Your task to perform on an android device: Go to privacy settings Image 0: 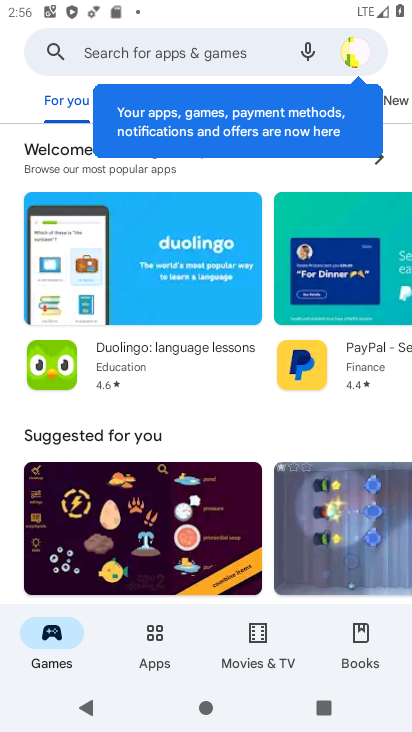
Step 0: press home button
Your task to perform on an android device: Go to privacy settings Image 1: 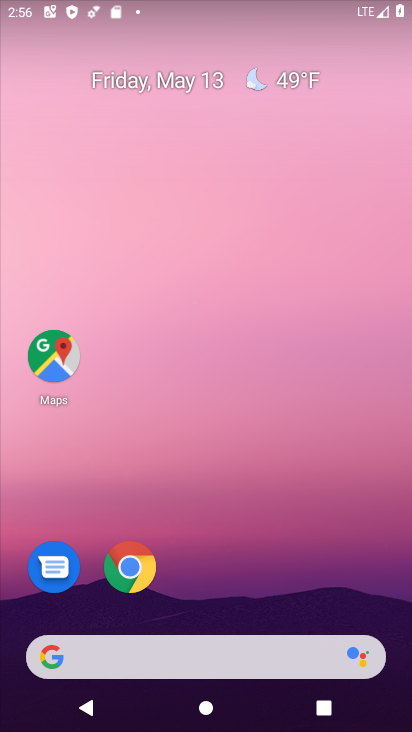
Step 1: drag from (217, 621) to (154, 83)
Your task to perform on an android device: Go to privacy settings Image 2: 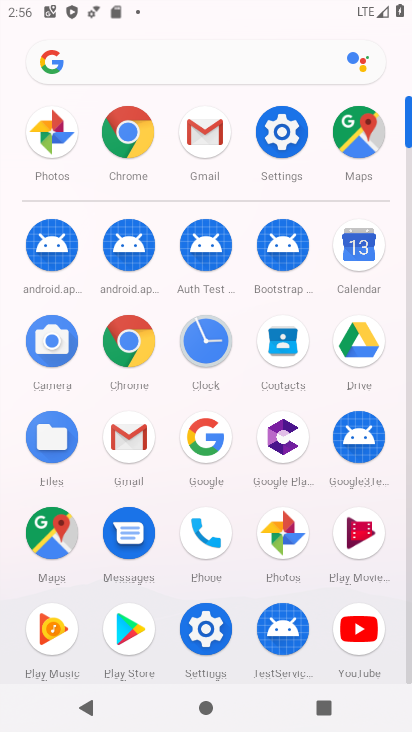
Step 2: click (286, 131)
Your task to perform on an android device: Go to privacy settings Image 3: 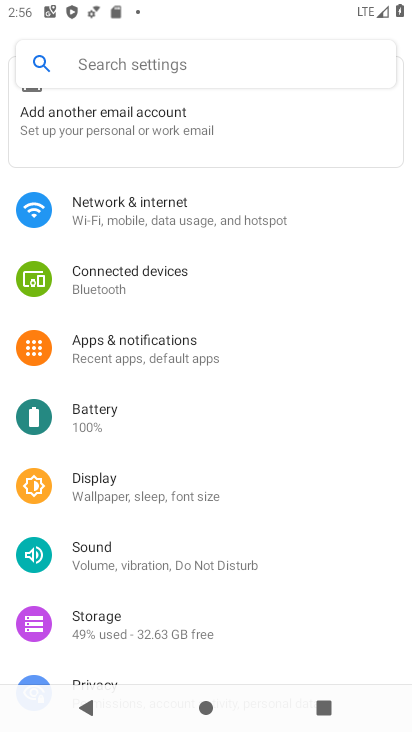
Step 3: click (131, 677)
Your task to perform on an android device: Go to privacy settings Image 4: 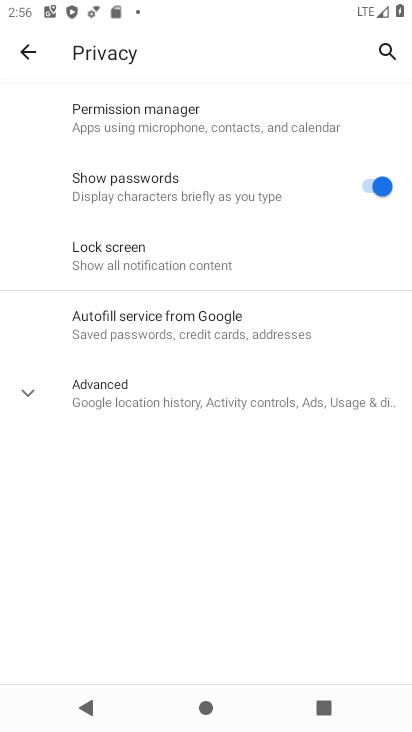
Step 4: task complete